Your task to perform on an android device: Open sound settings Image 0: 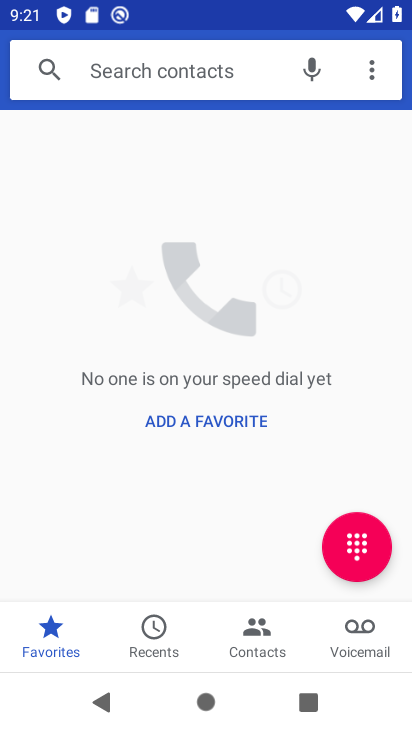
Step 0: press home button
Your task to perform on an android device: Open sound settings Image 1: 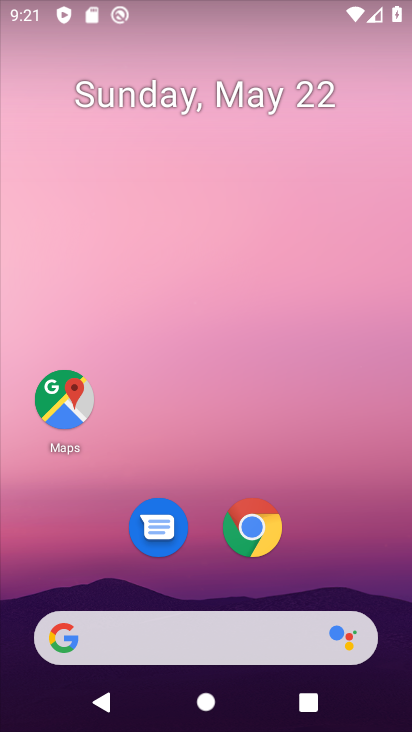
Step 1: drag from (214, 582) to (248, 125)
Your task to perform on an android device: Open sound settings Image 2: 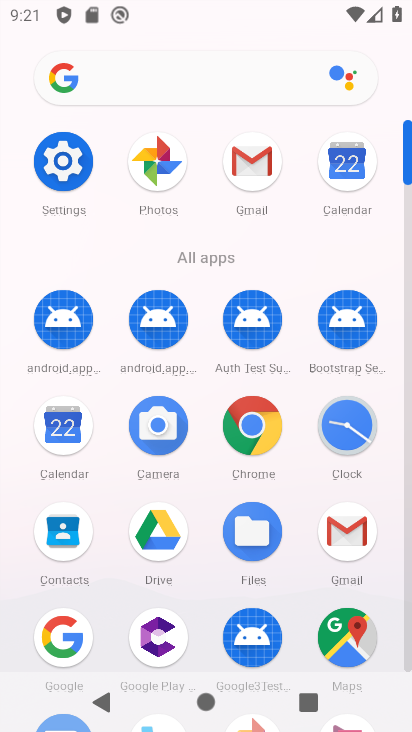
Step 2: click (53, 185)
Your task to perform on an android device: Open sound settings Image 3: 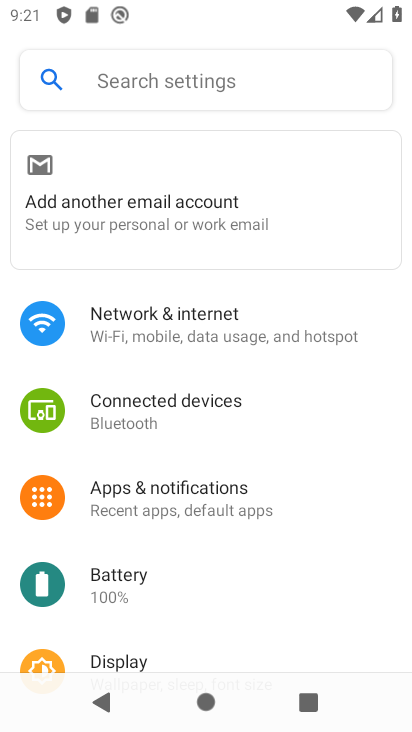
Step 3: task complete